Your task to perform on an android device: Open privacy settings Image 0: 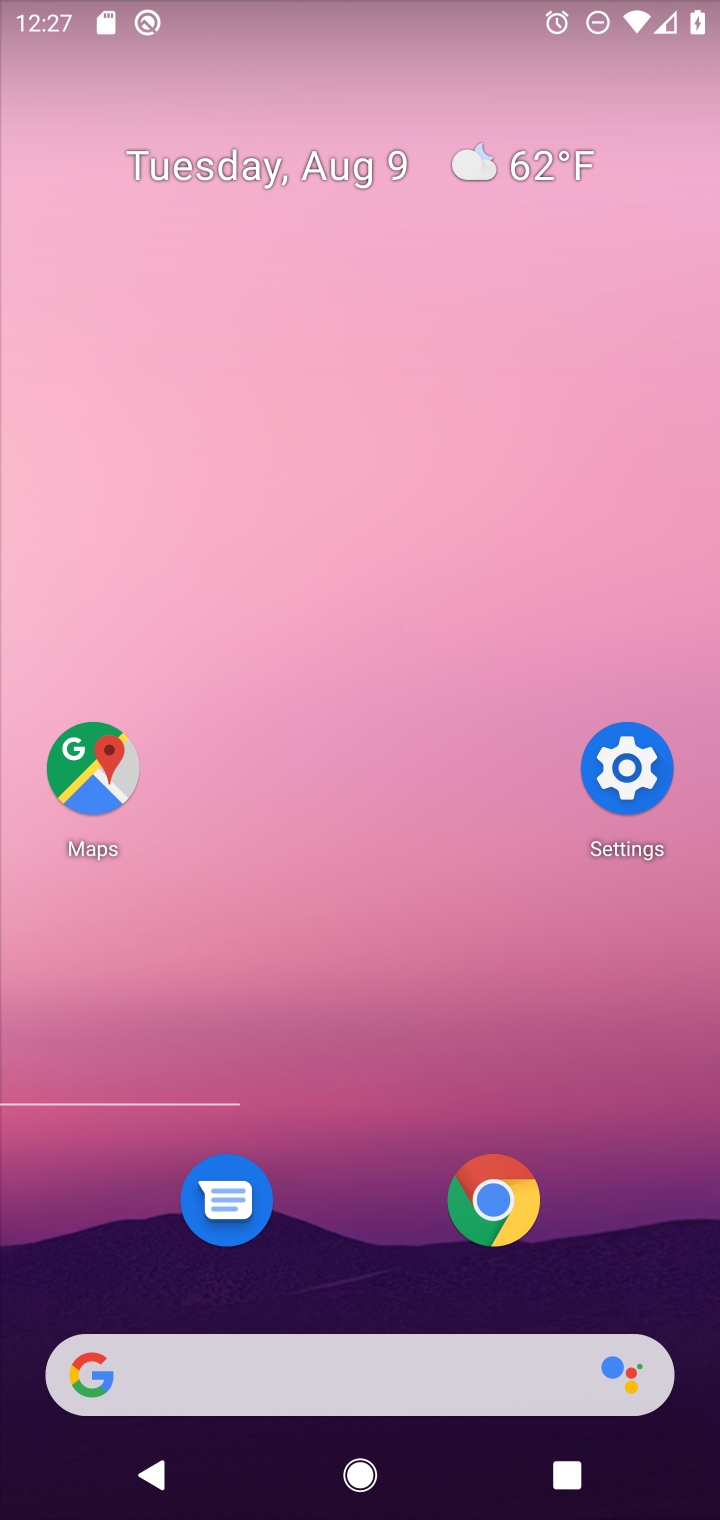
Step 0: press home button
Your task to perform on an android device: Open privacy settings Image 1: 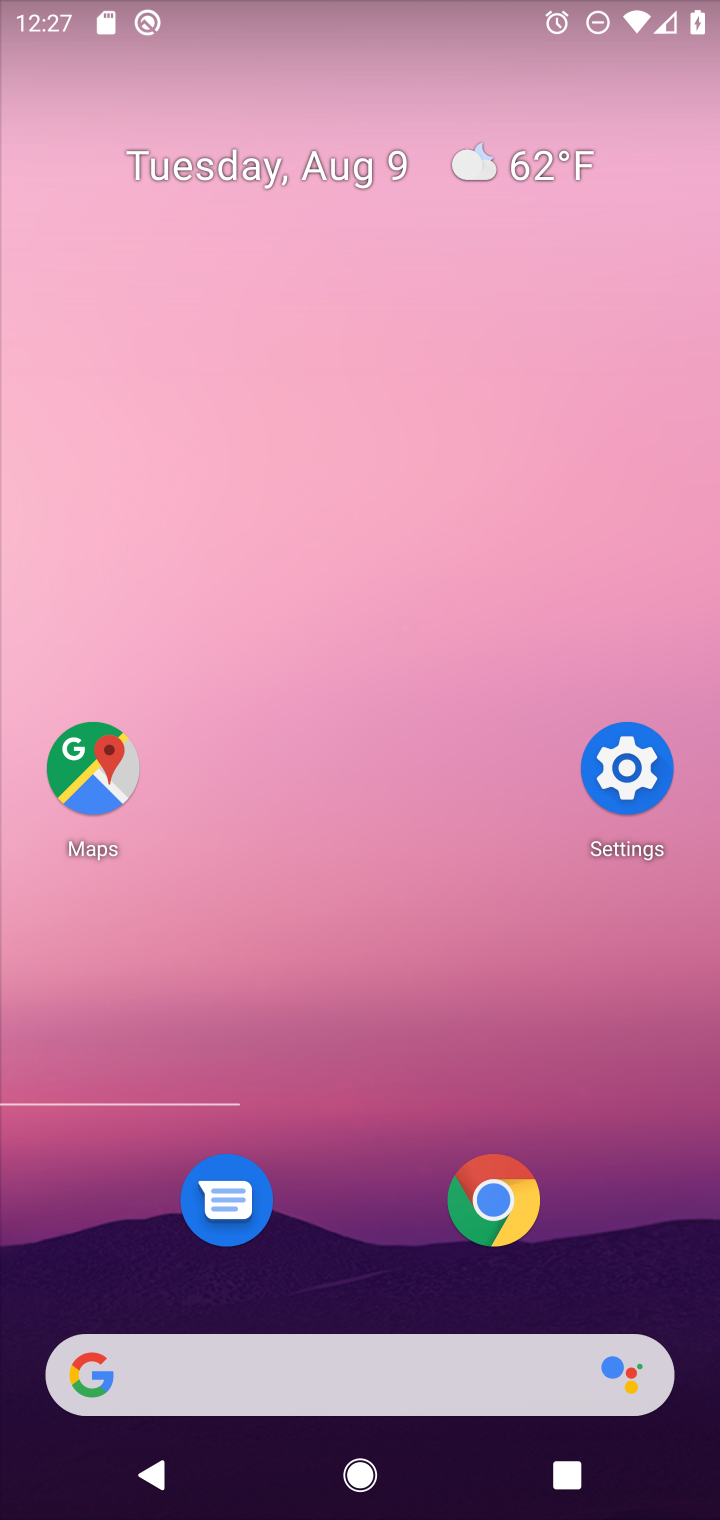
Step 1: click (634, 773)
Your task to perform on an android device: Open privacy settings Image 2: 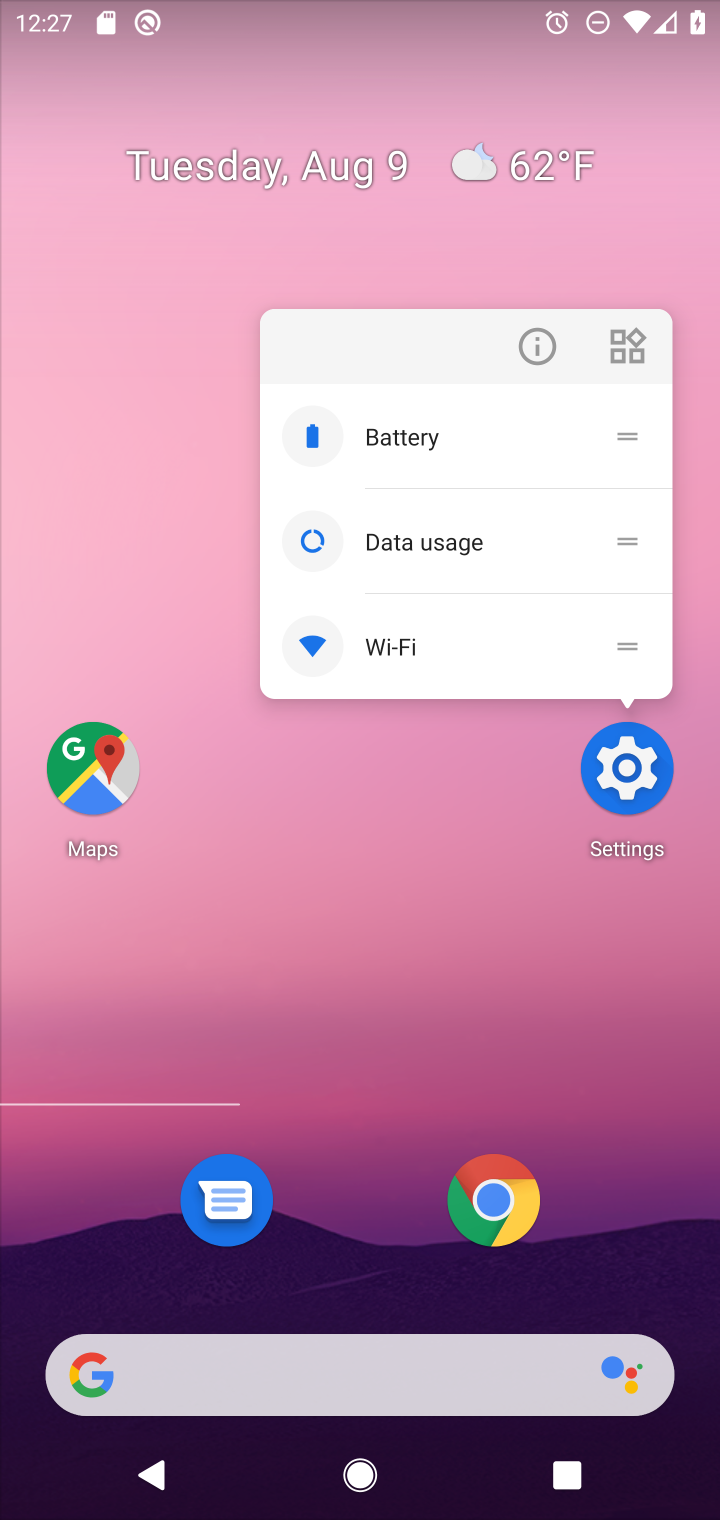
Step 2: click (634, 779)
Your task to perform on an android device: Open privacy settings Image 3: 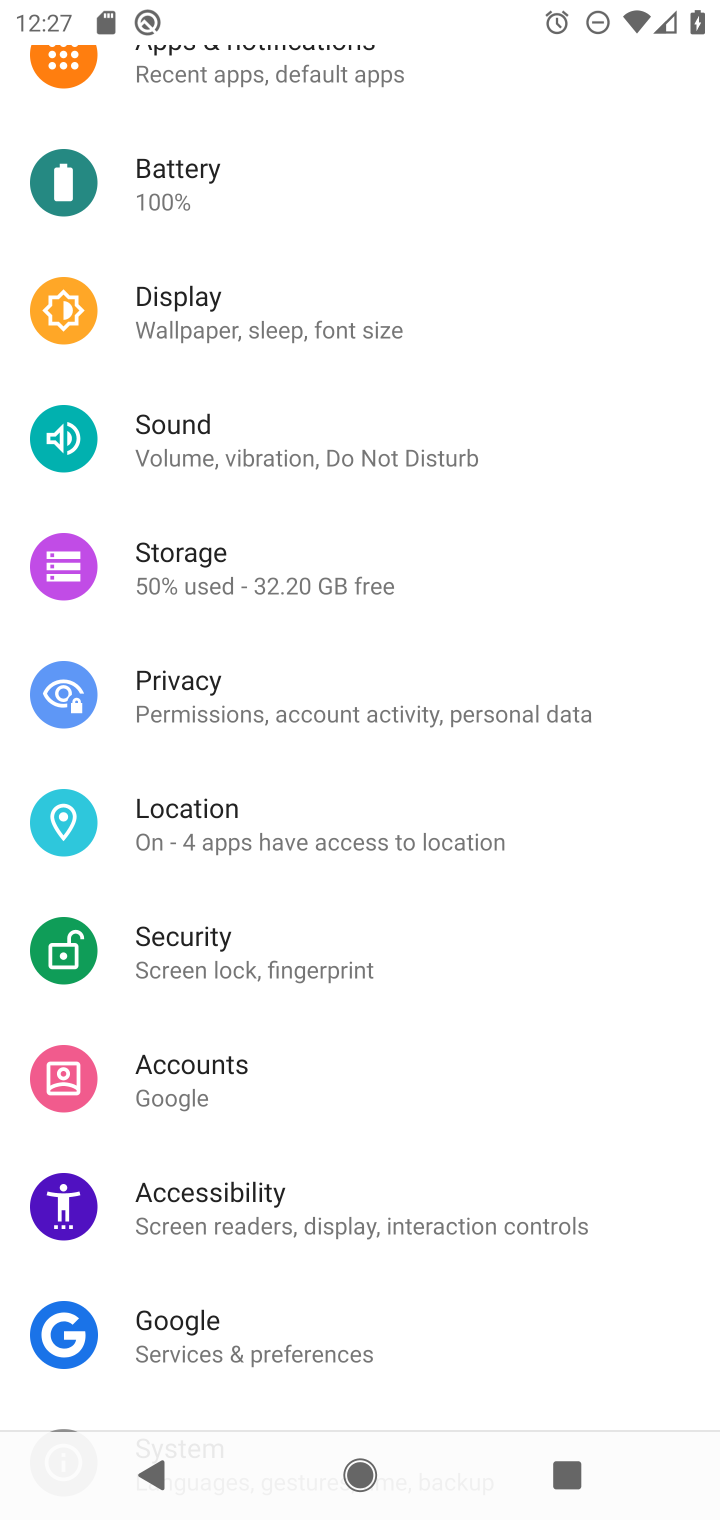
Step 3: click (213, 685)
Your task to perform on an android device: Open privacy settings Image 4: 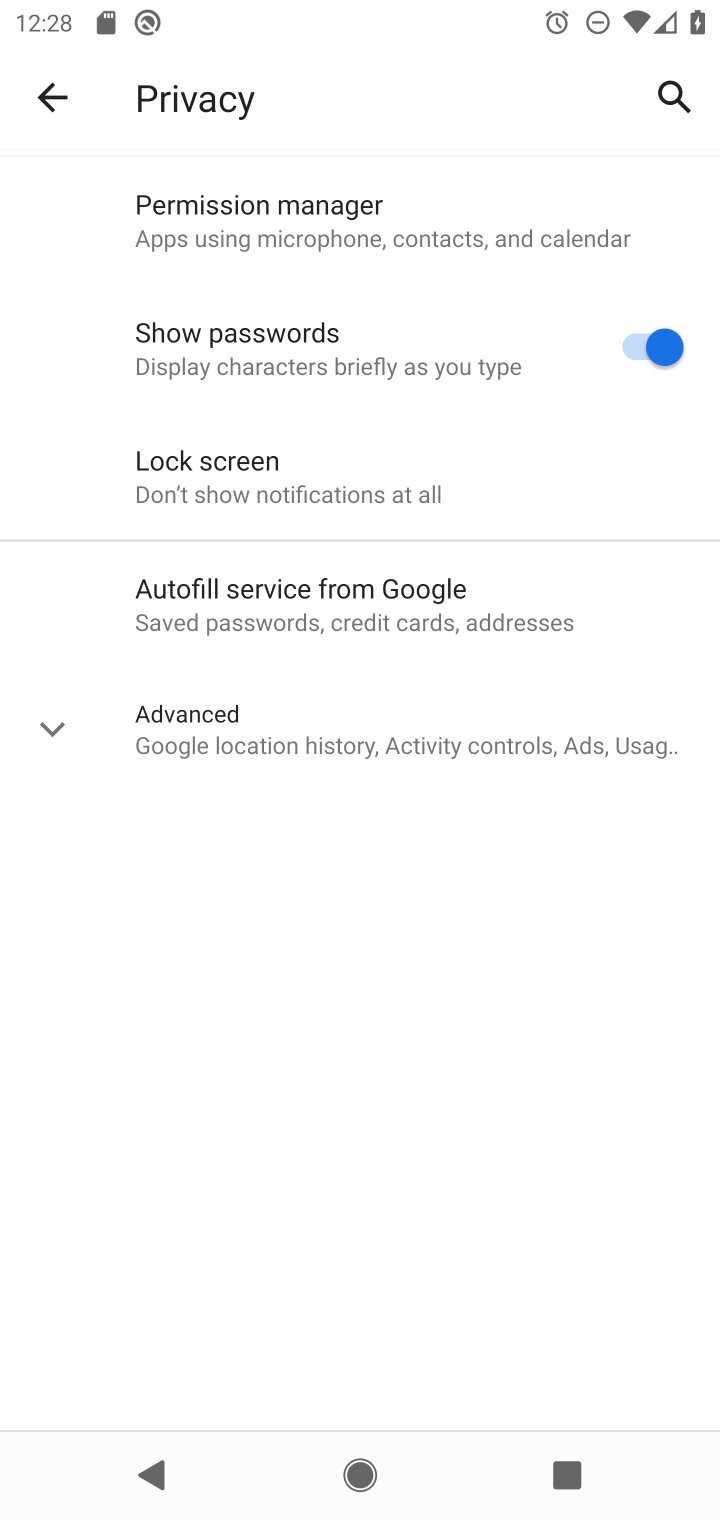
Step 4: task complete